Your task to perform on an android device: Search for pizza restaurants on Maps Image 0: 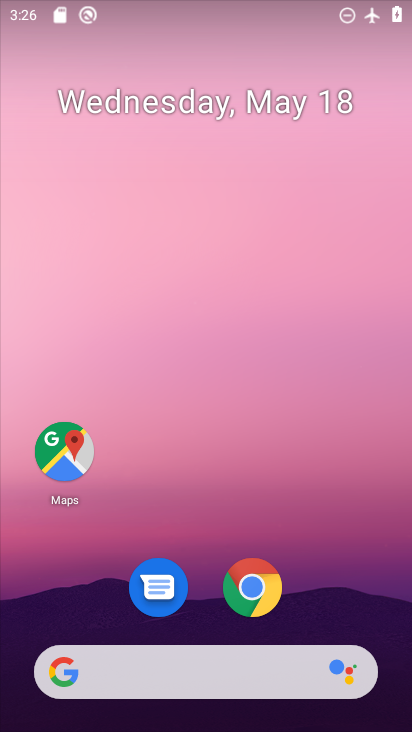
Step 0: click (69, 469)
Your task to perform on an android device: Search for pizza restaurants on Maps Image 1: 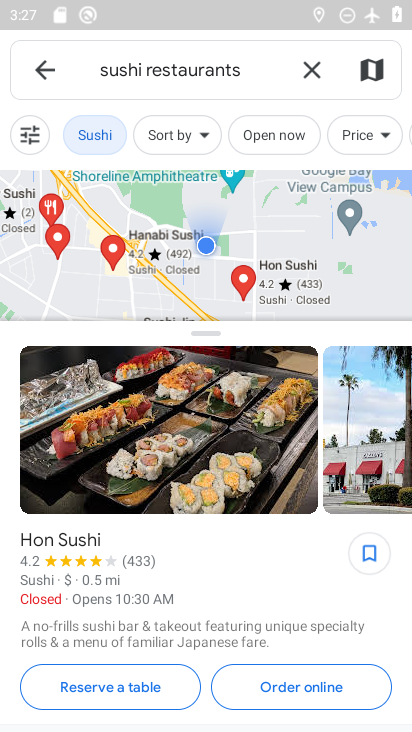
Step 1: click (300, 66)
Your task to perform on an android device: Search for pizza restaurants on Maps Image 2: 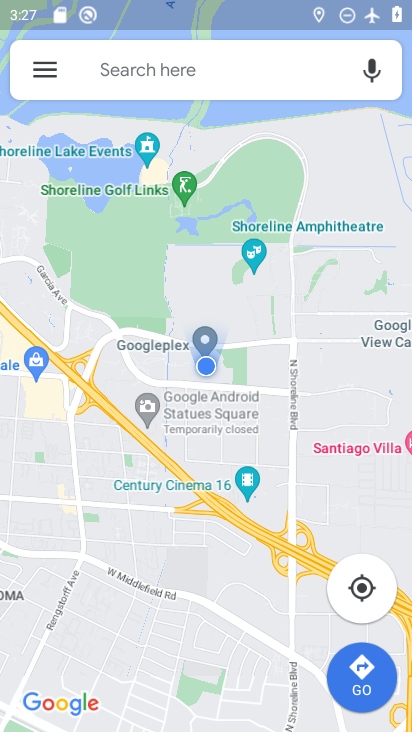
Step 2: click (196, 72)
Your task to perform on an android device: Search for pizza restaurants on Maps Image 3: 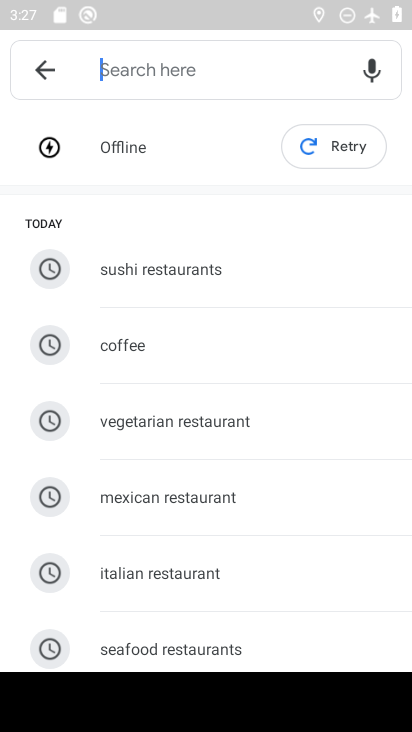
Step 3: type "pizza restaurants"
Your task to perform on an android device: Search for pizza restaurants on Maps Image 4: 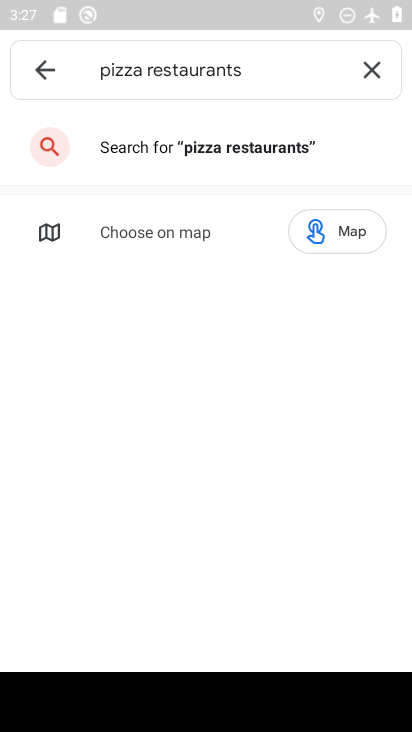
Step 4: task complete